Your task to perform on an android device: toggle sleep mode Image 0: 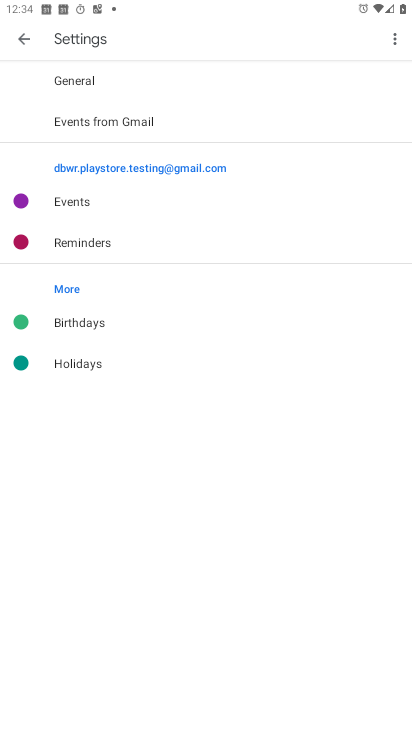
Step 0: press home button
Your task to perform on an android device: toggle sleep mode Image 1: 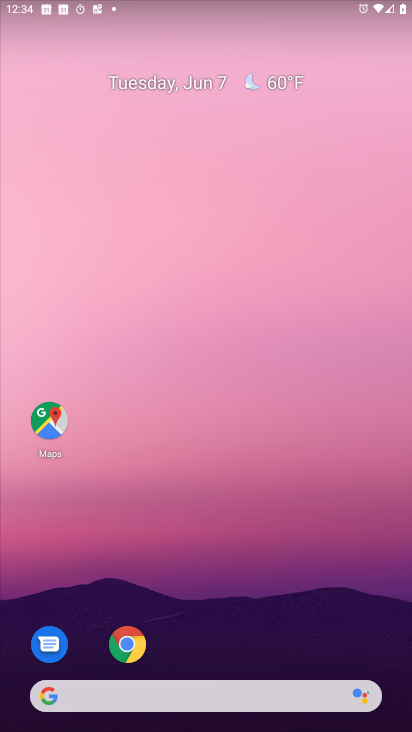
Step 1: drag from (223, 15) to (278, 486)
Your task to perform on an android device: toggle sleep mode Image 2: 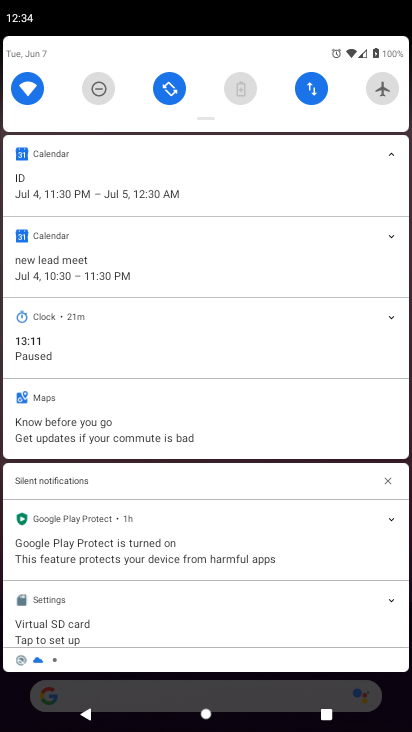
Step 2: drag from (205, 133) to (237, 555)
Your task to perform on an android device: toggle sleep mode Image 3: 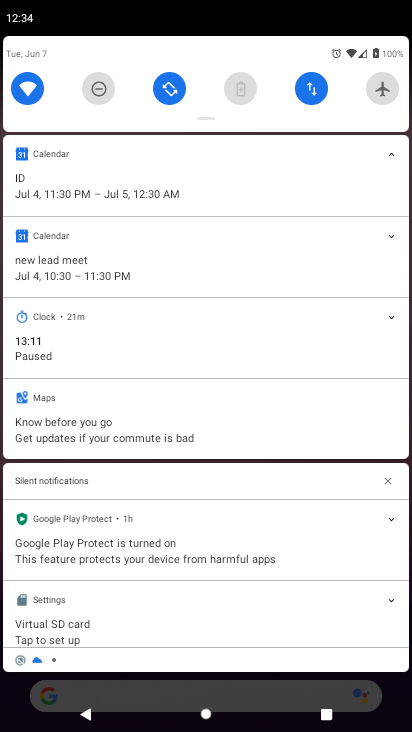
Step 3: drag from (204, 121) to (271, 667)
Your task to perform on an android device: toggle sleep mode Image 4: 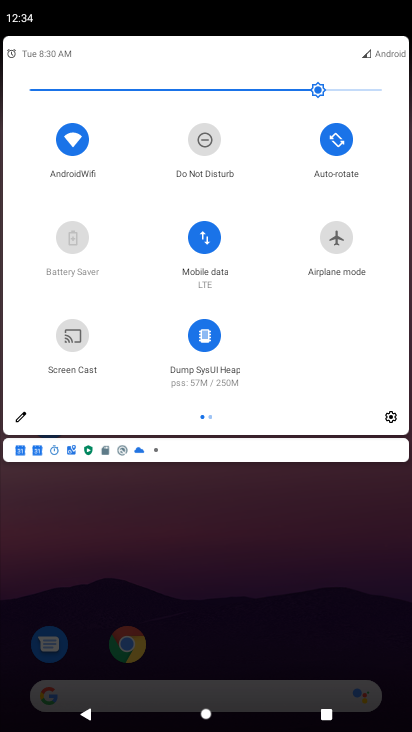
Step 4: click (14, 416)
Your task to perform on an android device: toggle sleep mode Image 5: 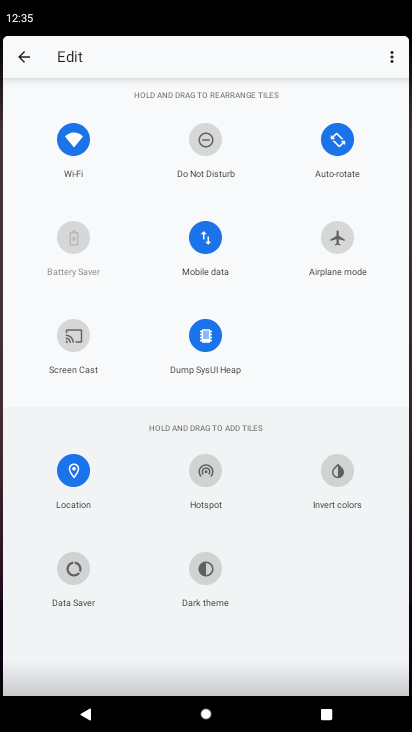
Step 5: task complete